Your task to perform on an android device: read, delete, or share a saved page in the chrome app Image 0: 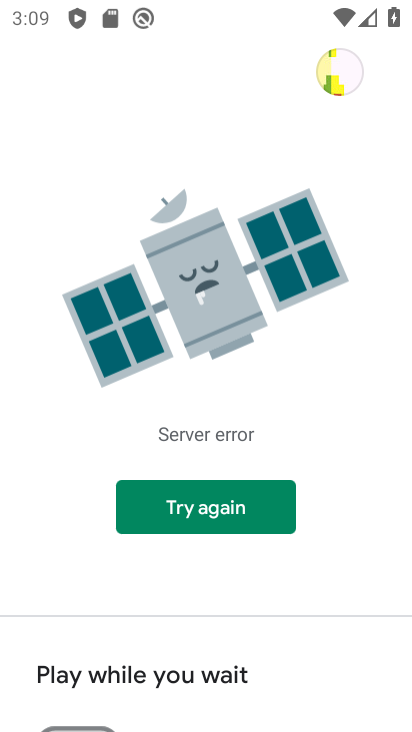
Step 0: press back button
Your task to perform on an android device: read, delete, or share a saved page in the chrome app Image 1: 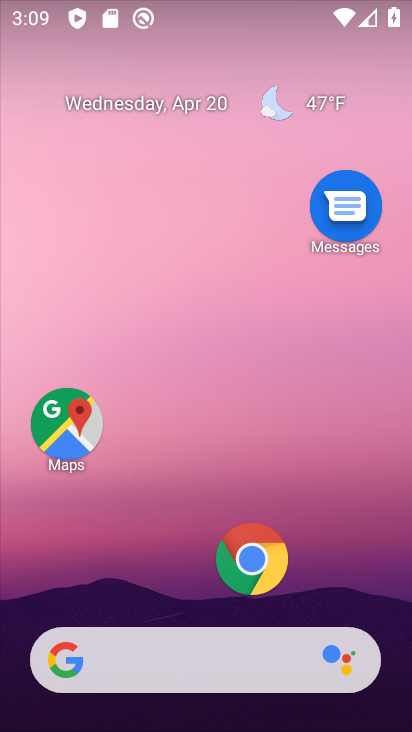
Step 1: drag from (127, 611) to (199, 207)
Your task to perform on an android device: read, delete, or share a saved page in the chrome app Image 2: 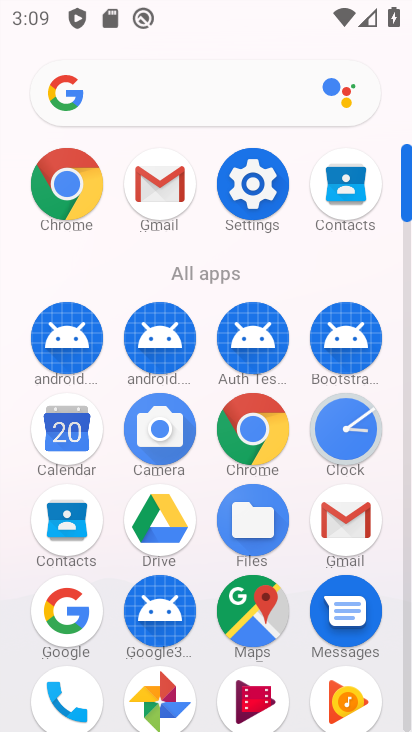
Step 2: drag from (163, 656) to (248, 421)
Your task to perform on an android device: read, delete, or share a saved page in the chrome app Image 3: 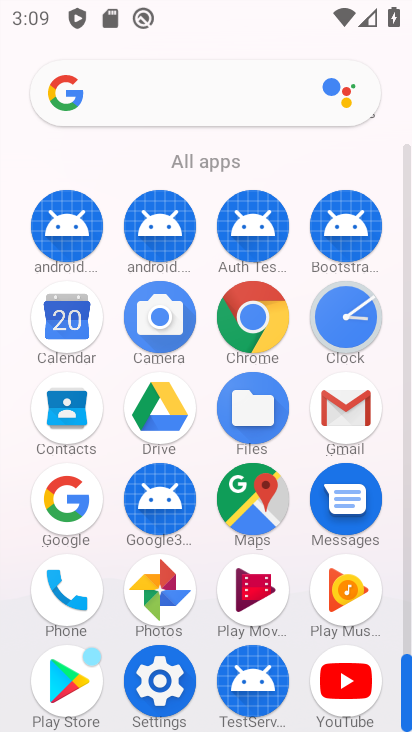
Step 3: click (247, 336)
Your task to perform on an android device: read, delete, or share a saved page in the chrome app Image 4: 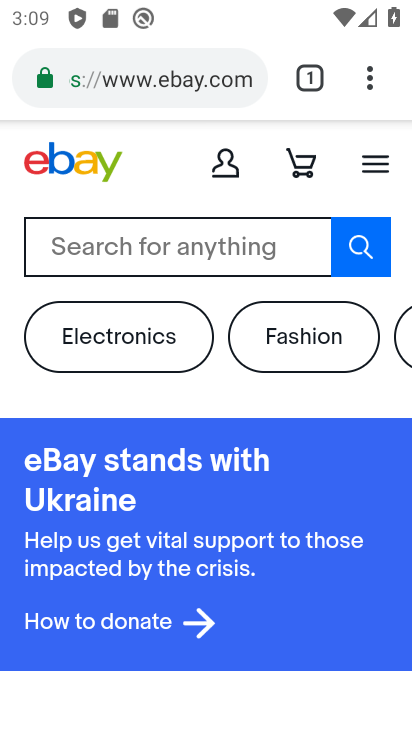
Step 4: drag from (373, 87) to (264, 521)
Your task to perform on an android device: read, delete, or share a saved page in the chrome app Image 5: 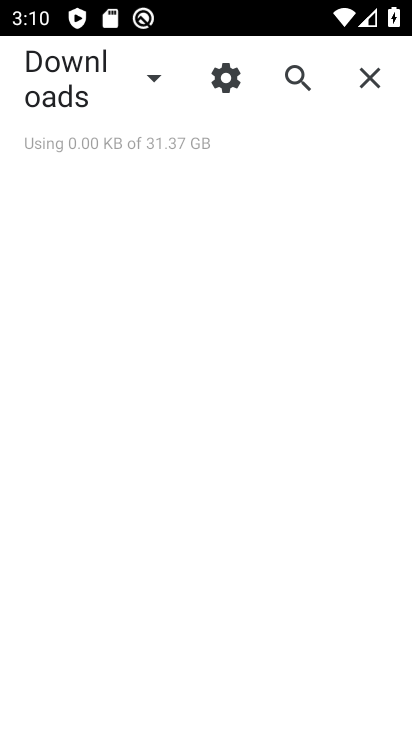
Step 5: click (117, 76)
Your task to perform on an android device: read, delete, or share a saved page in the chrome app Image 6: 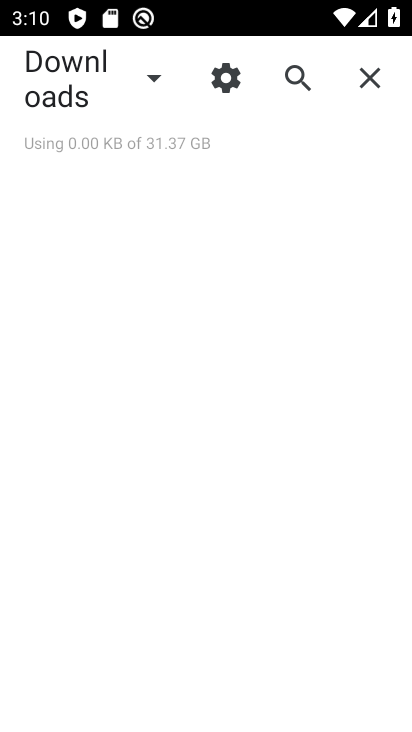
Step 6: click (147, 78)
Your task to perform on an android device: read, delete, or share a saved page in the chrome app Image 7: 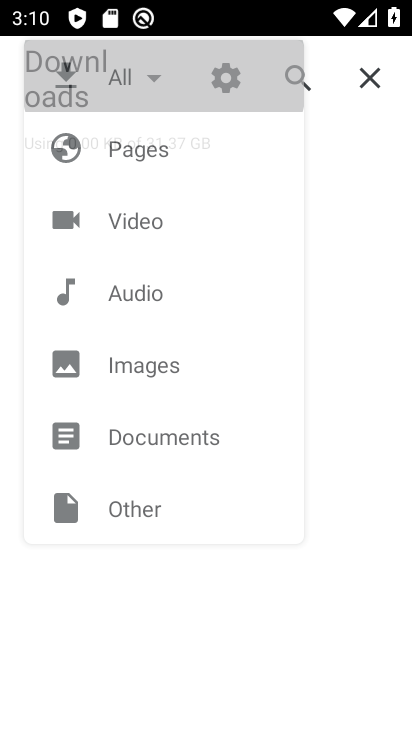
Step 7: click (149, 80)
Your task to perform on an android device: read, delete, or share a saved page in the chrome app Image 8: 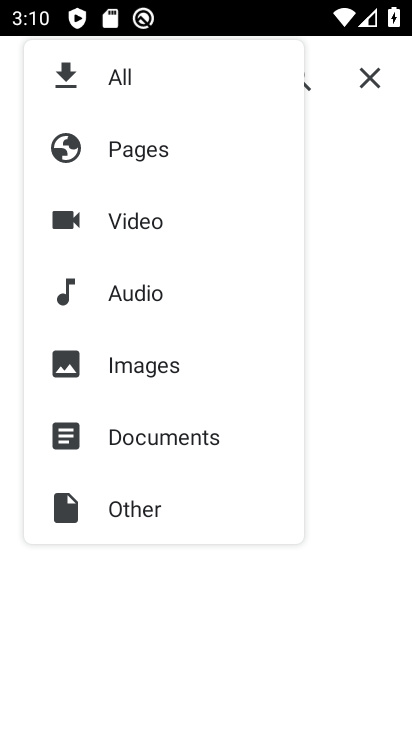
Step 8: click (165, 159)
Your task to perform on an android device: read, delete, or share a saved page in the chrome app Image 9: 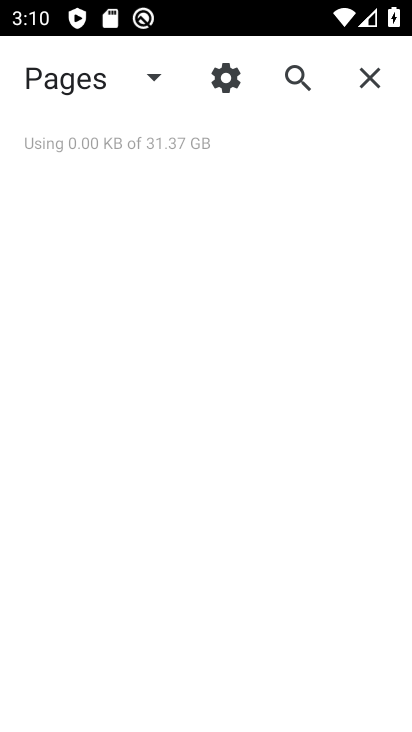
Step 9: task complete